Your task to perform on an android device: turn smart compose on in the gmail app Image 0: 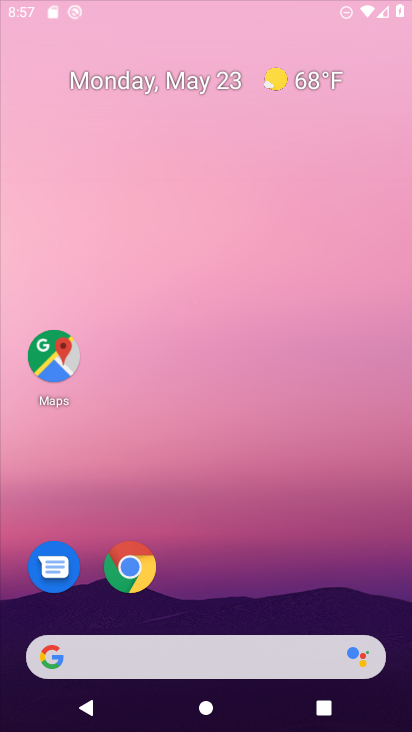
Step 0: drag from (238, 15) to (391, 32)
Your task to perform on an android device: turn smart compose on in the gmail app Image 1: 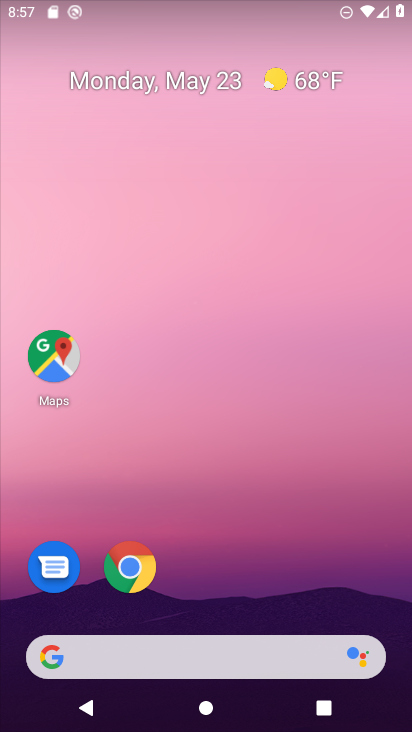
Step 1: drag from (223, 599) to (273, 11)
Your task to perform on an android device: turn smart compose on in the gmail app Image 2: 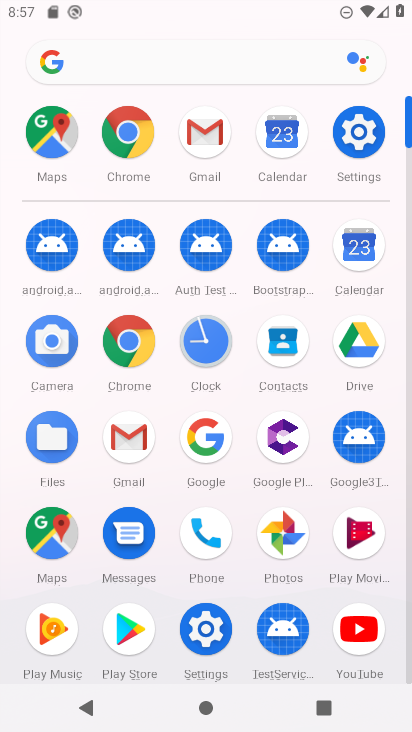
Step 2: click (112, 443)
Your task to perform on an android device: turn smart compose on in the gmail app Image 3: 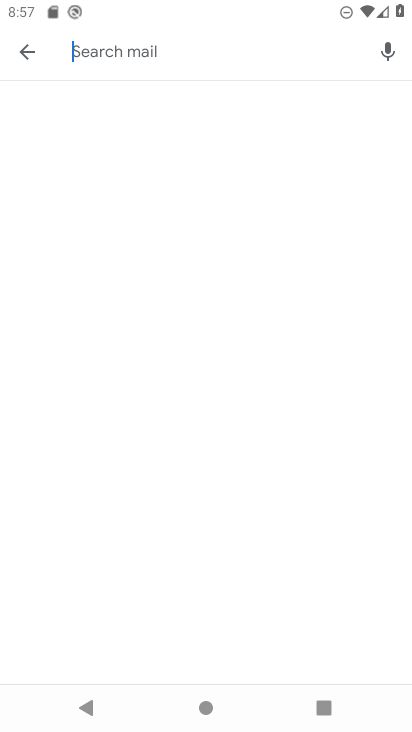
Step 3: drag from (215, 505) to (248, 106)
Your task to perform on an android device: turn smart compose on in the gmail app Image 4: 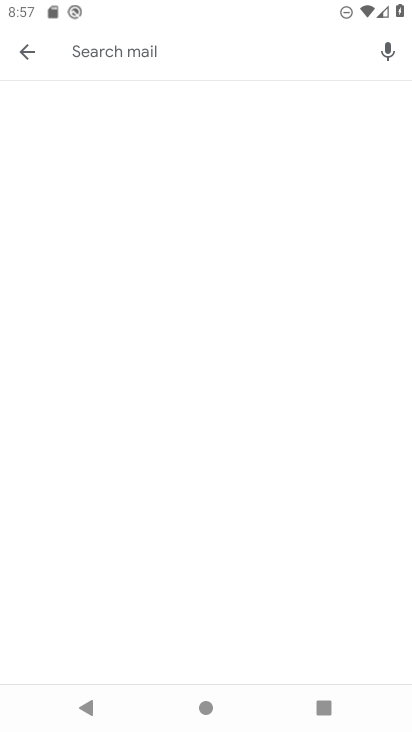
Step 4: click (20, 50)
Your task to perform on an android device: turn smart compose on in the gmail app Image 5: 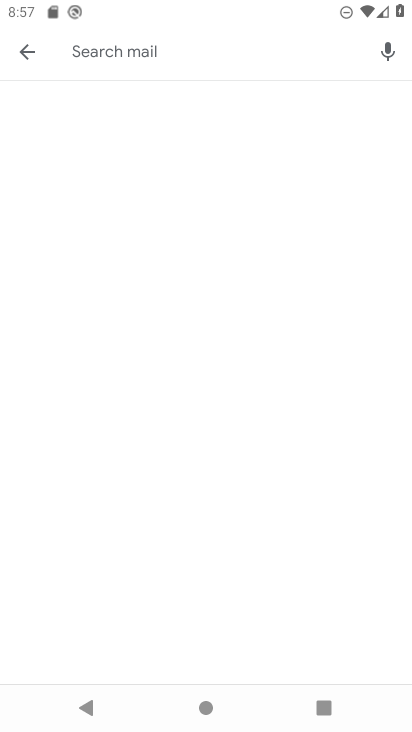
Step 5: press back button
Your task to perform on an android device: turn smart compose on in the gmail app Image 6: 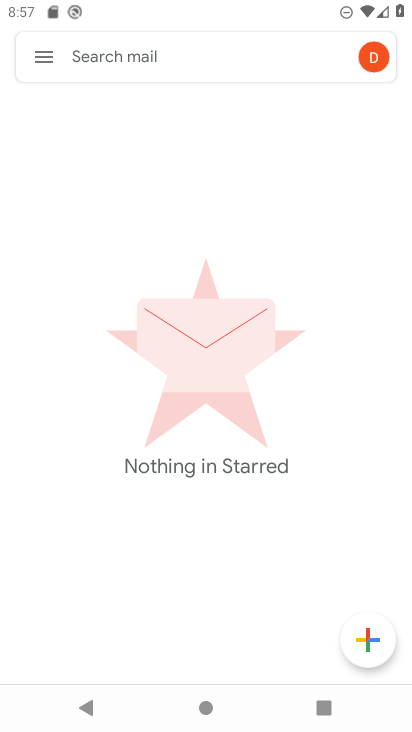
Step 6: click (50, 51)
Your task to perform on an android device: turn smart compose on in the gmail app Image 7: 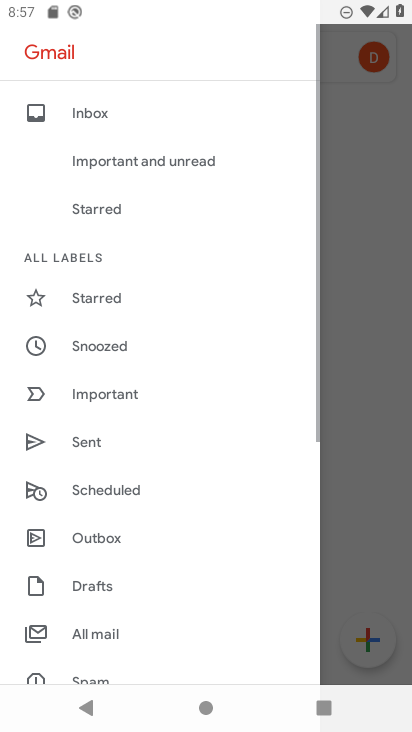
Step 7: drag from (132, 648) to (155, 12)
Your task to perform on an android device: turn smart compose on in the gmail app Image 8: 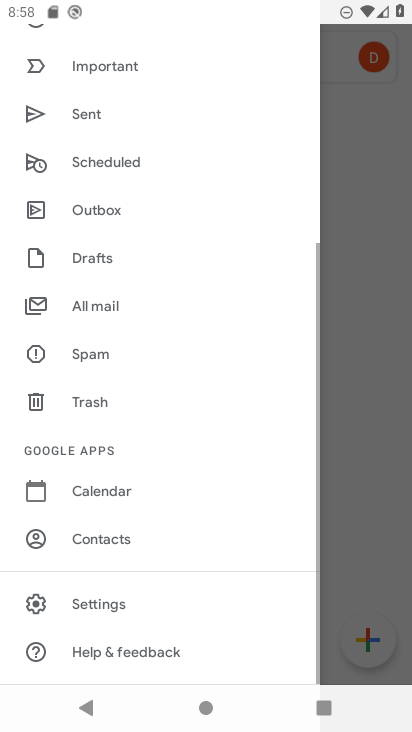
Step 8: click (118, 604)
Your task to perform on an android device: turn smart compose on in the gmail app Image 9: 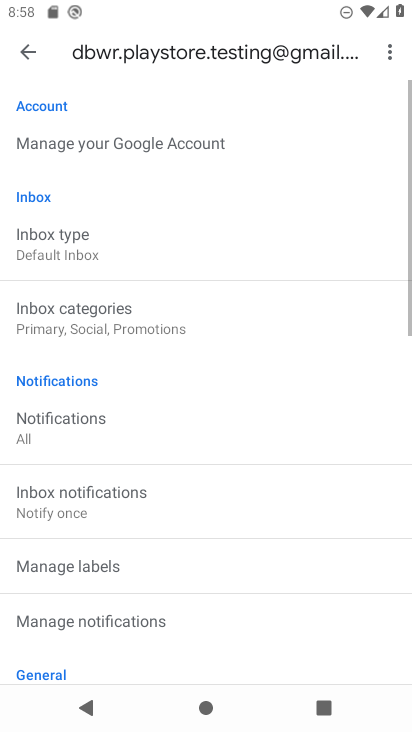
Step 9: task complete